Your task to perform on an android device: delete a single message in the gmail app Image 0: 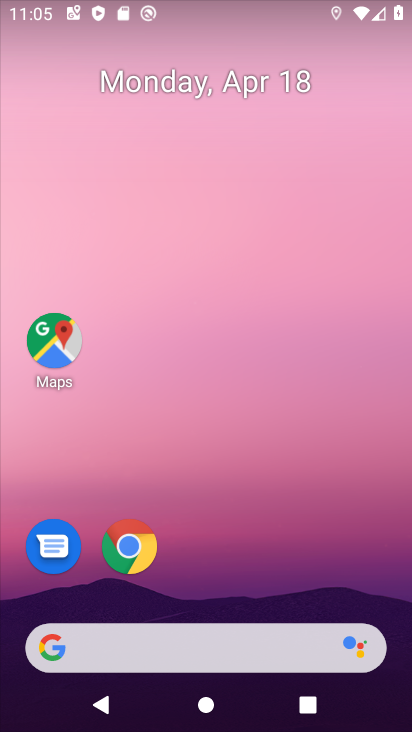
Step 0: click (50, 366)
Your task to perform on an android device: delete a single message in the gmail app Image 1: 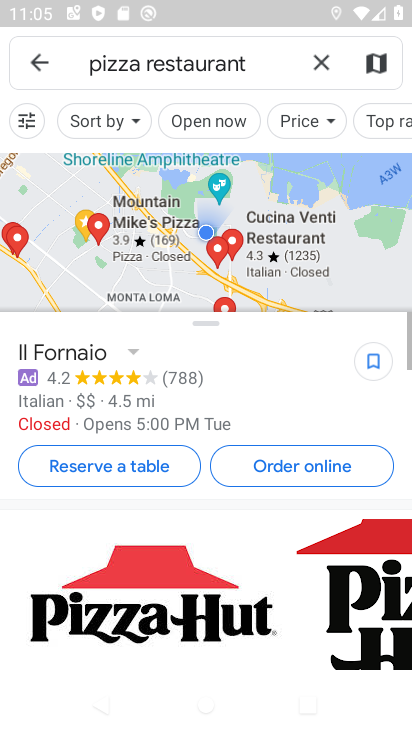
Step 1: click (313, 70)
Your task to perform on an android device: delete a single message in the gmail app Image 2: 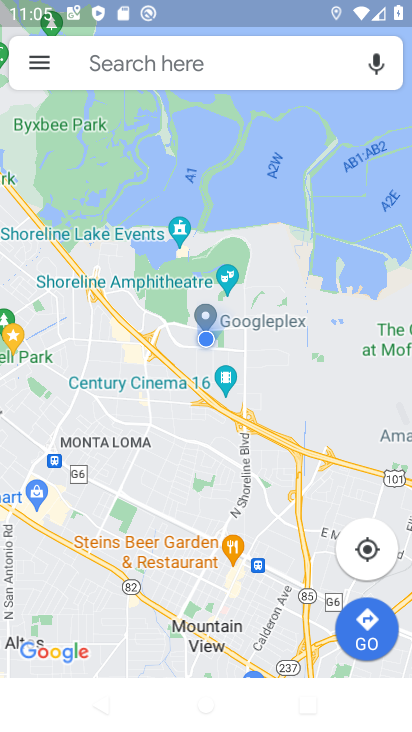
Step 2: press back button
Your task to perform on an android device: delete a single message in the gmail app Image 3: 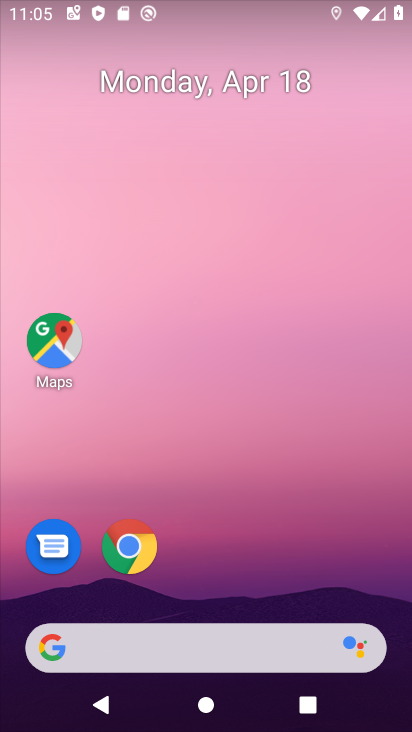
Step 3: drag from (286, 580) to (277, 50)
Your task to perform on an android device: delete a single message in the gmail app Image 4: 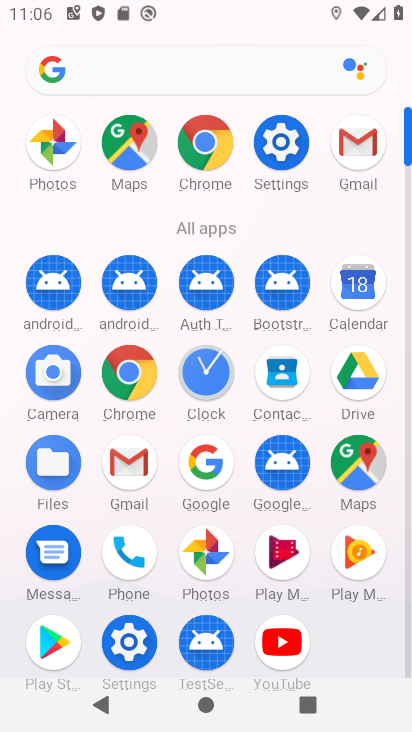
Step 4: click (136, 480)
Your task to perform on an android device: delete a single message in the gmail app Image 5: 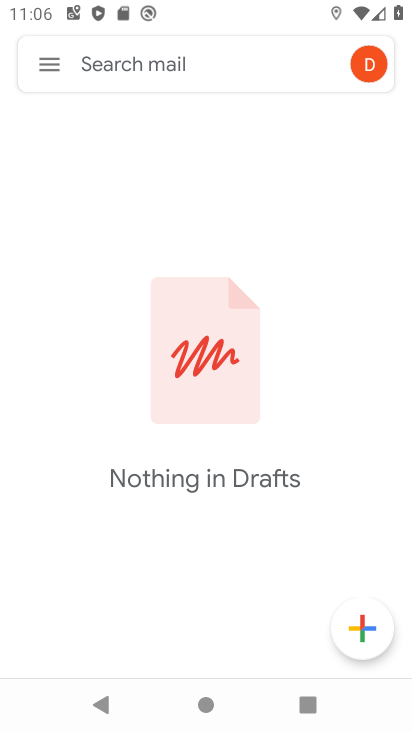
Step 5: click (62, 69)
Your task to perform on an android device: delete a single message in the gmail app Image 6: 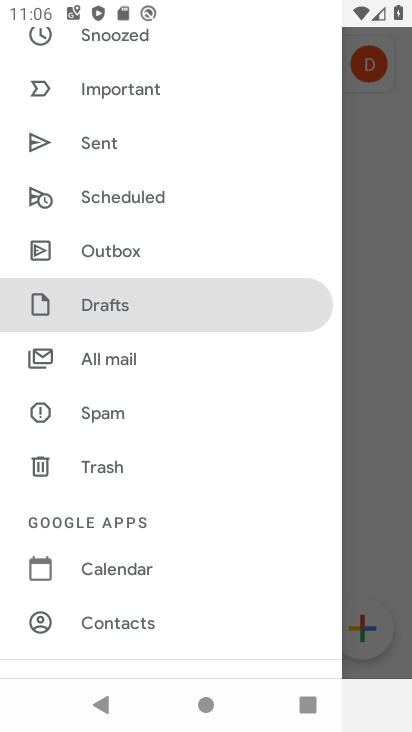
Step 6: click (142, 366)
Your task to perform on an android device: delete a single message in the gmail app Image 7: 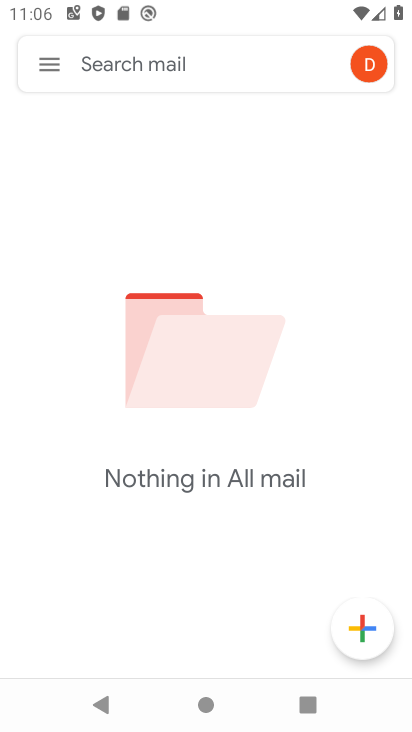
Step 7: task complete